Your task to perform on an android device: Search for vegetarian restaurants on Maps Image 0: 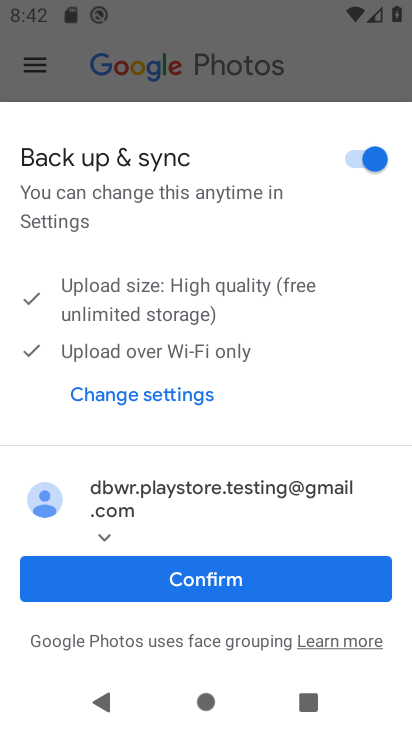
Step 0: press home button
Your task to perform on an android device: Search for vegetarian restaurants on Maps Image 1: 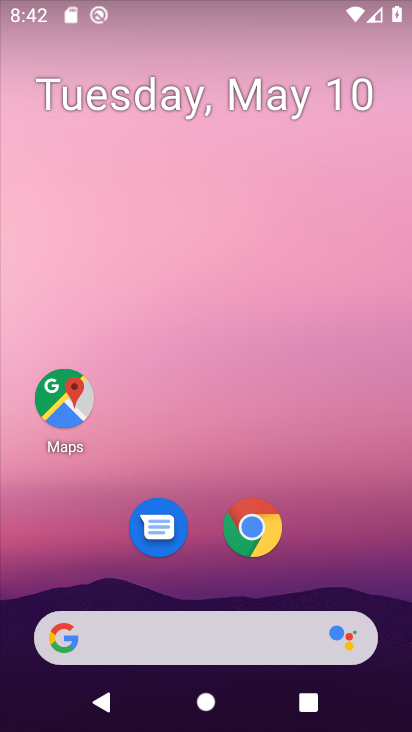
Step 1: click (82, 407)
Your task to perform on an android device: Search for vegetarian restaurants on Maps Image 2: 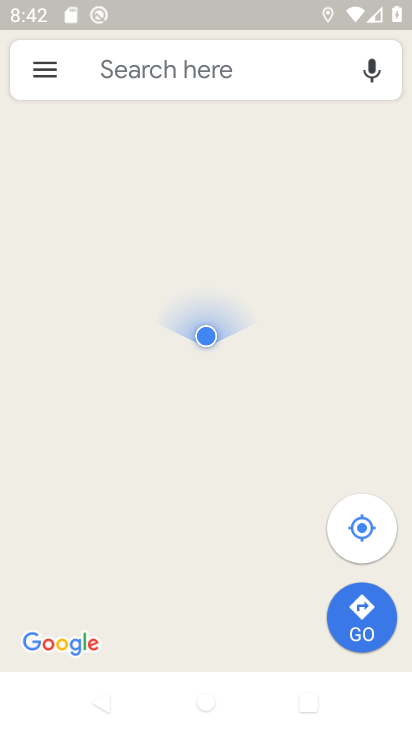
Step 2: click (211, 71)
Your task to perform on an android device: Search for vegetarian restaurants on Maps Image 3: 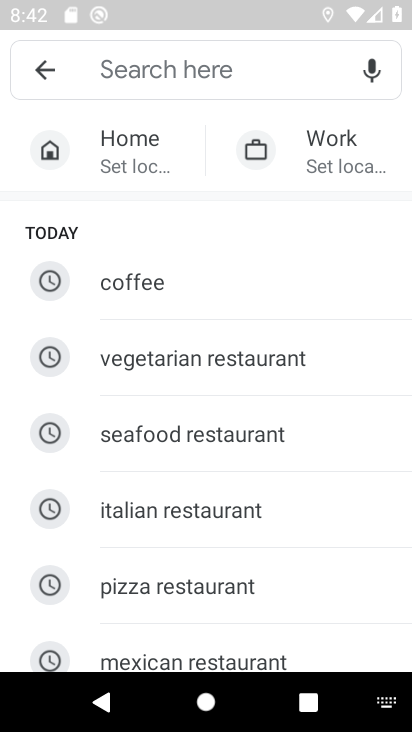
Step 3: click (196, 366)
Your task to perform on an android device: Search for vegetarian restaurants on Maps Image 4: 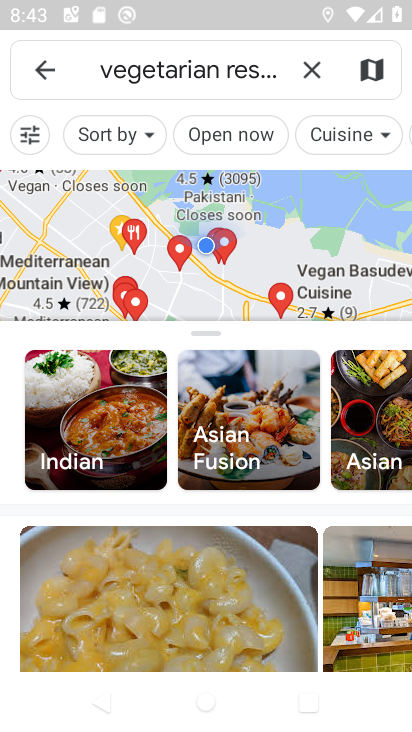
Step 4: task complete